Your task to perform on an android device: open a bookmark in the chrome app Image 0: 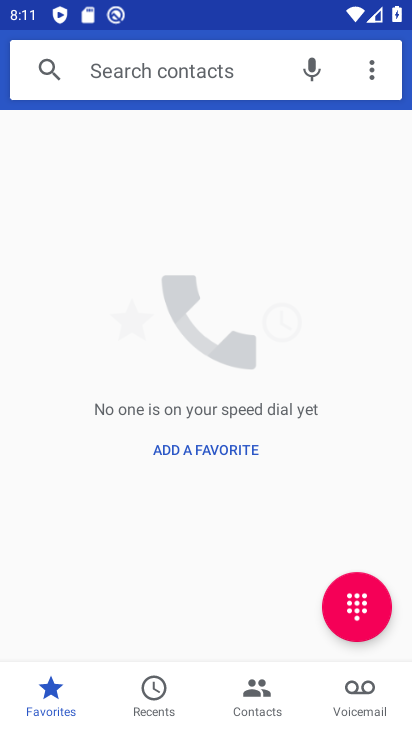
Step 0: press home button
Your task to perform on an android device: open a bookmark in the chrome app Image 1: 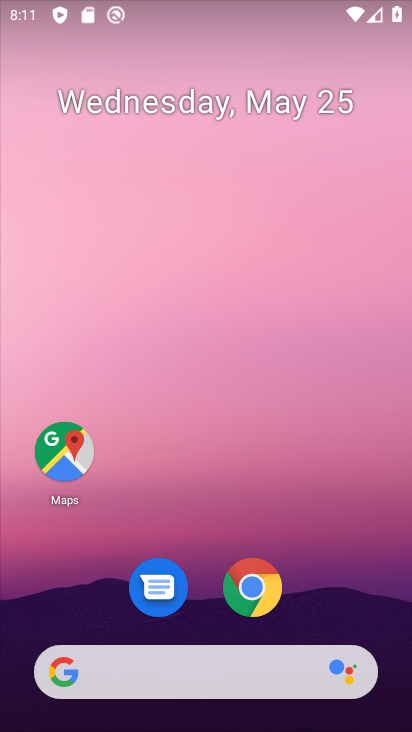
Step 1: click (252, 594)
Your task to perform on an android device: open a bookmark in the chrome app Image 2: 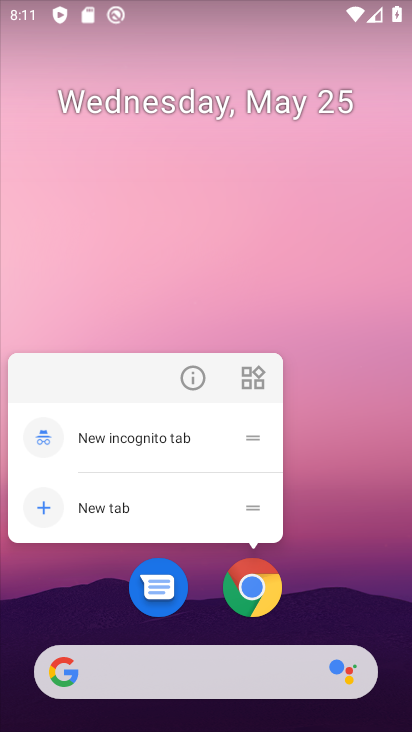
Step 2: click (251, 585)
Your task to perform on an android device: open a bookmark in the chrome app Image 3: 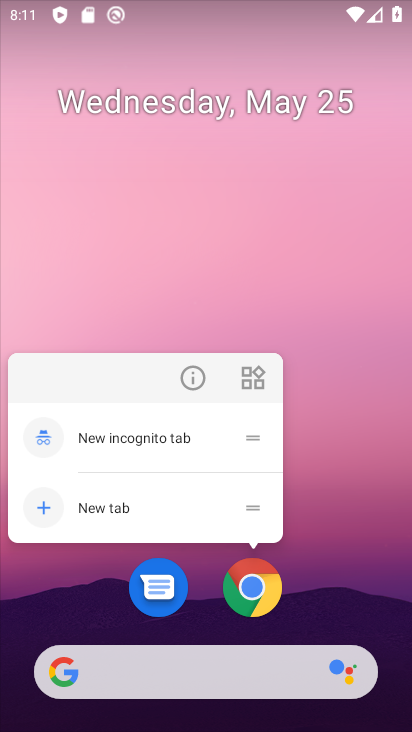
Step 3: click (265, 568)
Your task to perform on an android device: open a bookmark in the chrome app Image 4: 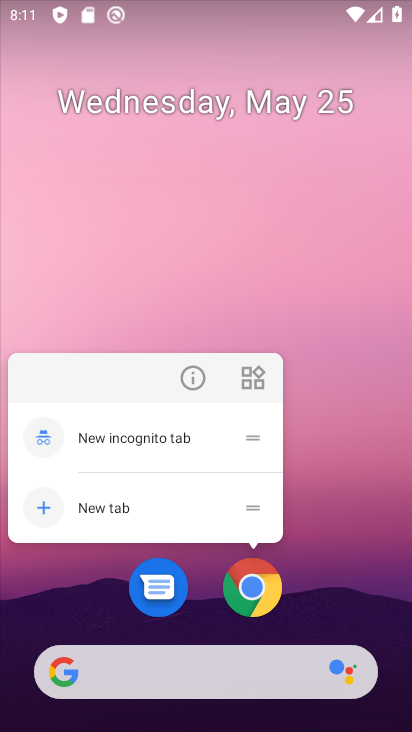
Step 4: click (310, 534)
Your task to perform on an android device: open a bookmark in the chrome app Image 5: 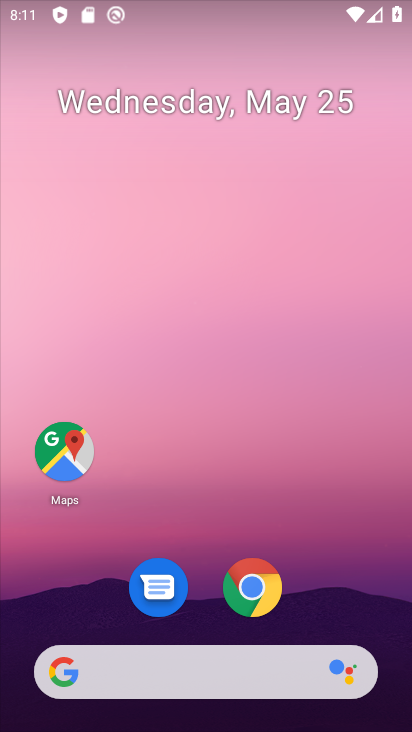
Step 5: drag from (354, 618) to (368, 190)
Your task to perform on an android device: open a bookmark in the chrome app Image 6: 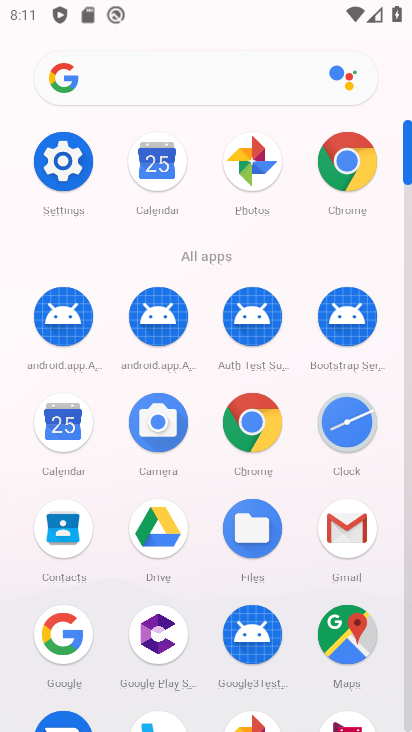
Step 6: click (249, 413)
Your task to perform on an android device: open a bookmark in the chrome app Image 7: 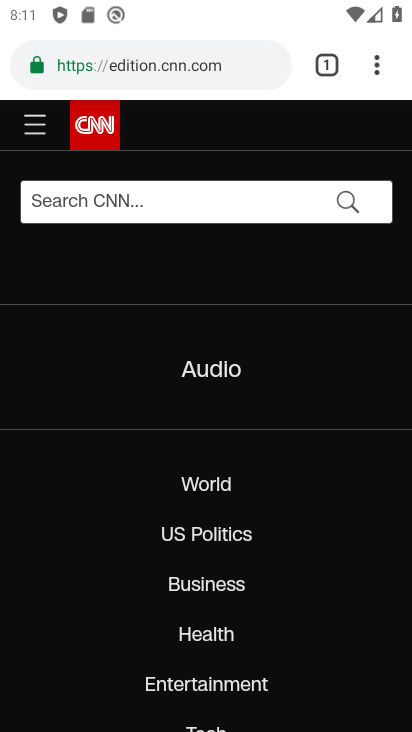
Step 7: task complete